Your task to perform on an android device: Go to display settings Image 0: 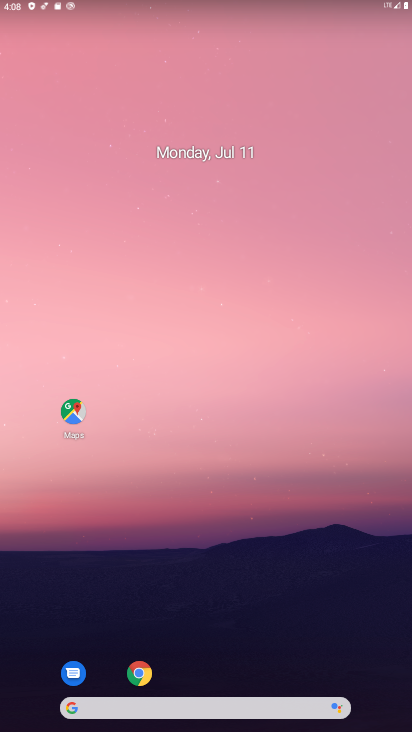
Step 0: drag from (269, 265) to (224, 44)
Your task to perform on an android device: Go to display settings Image 1: 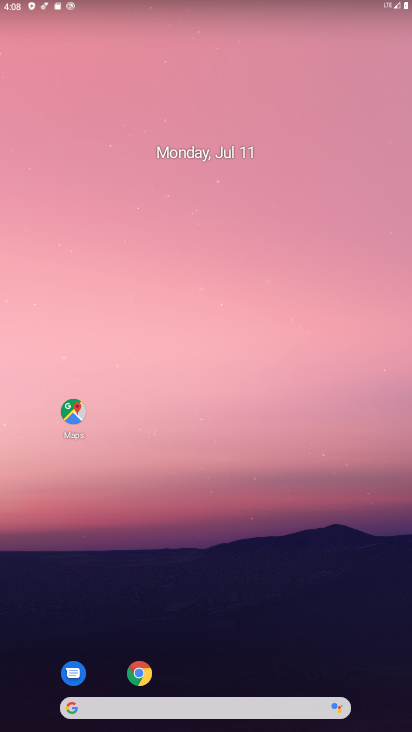
Step 1: drag from (385, 692) to (15, 105)
Your task to perform on an android device: Go to display settings Image 2: 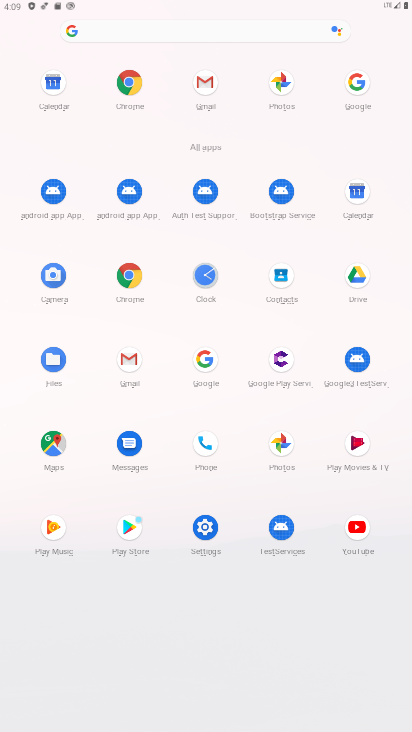
Step 2: click (195, 531)
Your task to perform on an android device: Go to display settings Image 3: 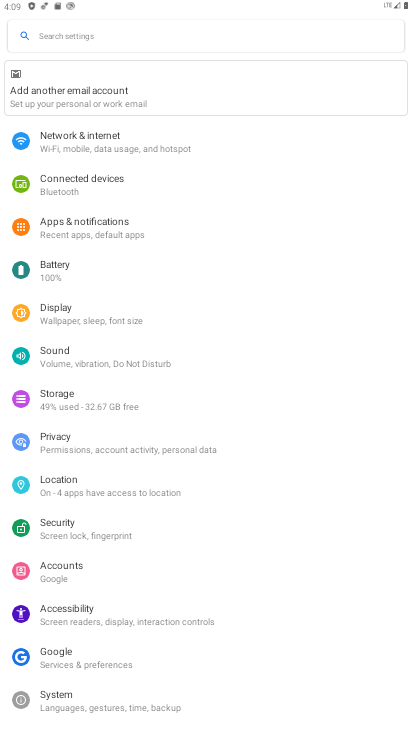
Step 3: click (68, 306)
Your task to perform on an android device: Go to display settings Image 4: 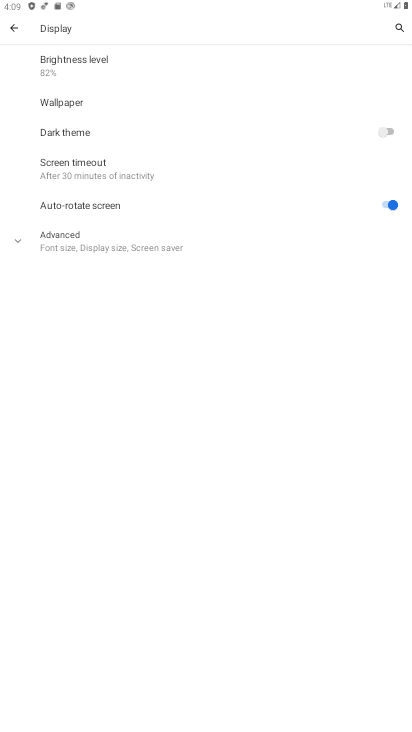
Step 4: task complete